Your task to perform on an android device: toggle improve location accuracy Image 0: 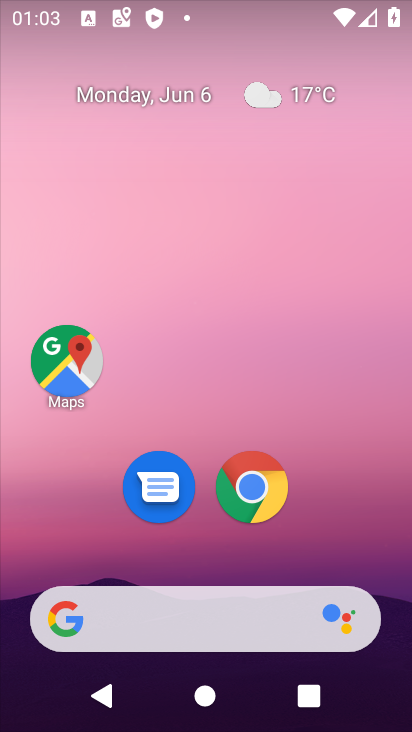
Step 0: drag from (403, 610) to (343, 145)
Your task to perform on an android device: toggle improve location accuracy Image 1: 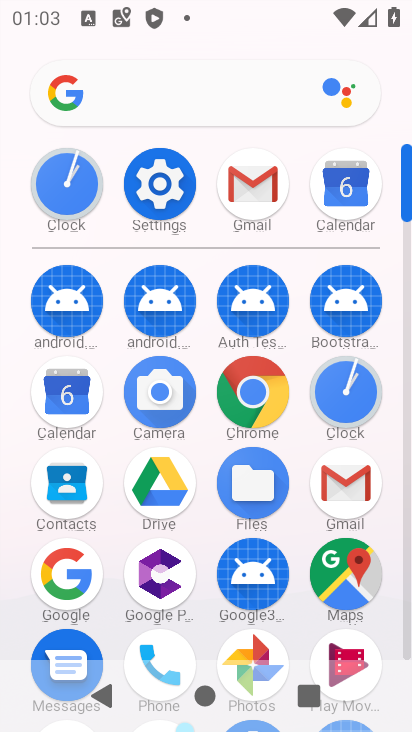
Step 1: click (408, 615)
Your task to perform on an android device: toggle improve location accuracy Image 2: 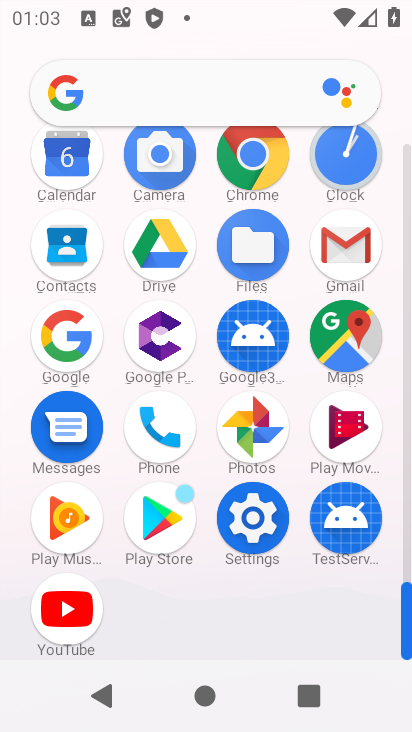
Step 2: click (251, 517)
Your task to perform on an android device: toggle improve location accuracy Image 3: 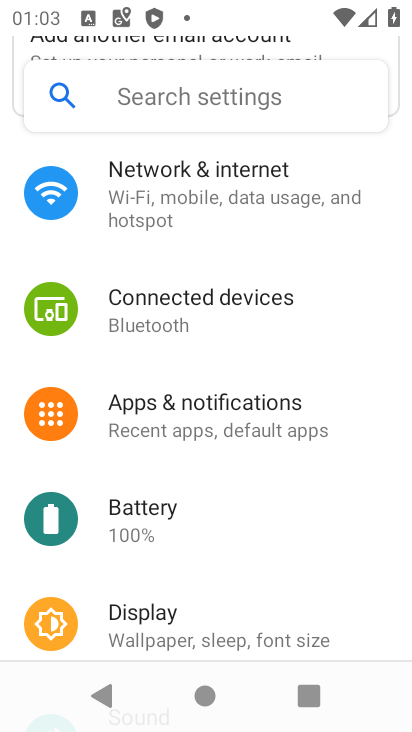
Step 3: drag from (294, 614) to (300, 135)
Your task to perform on an android device: toggle improve location accuracy Image 4: 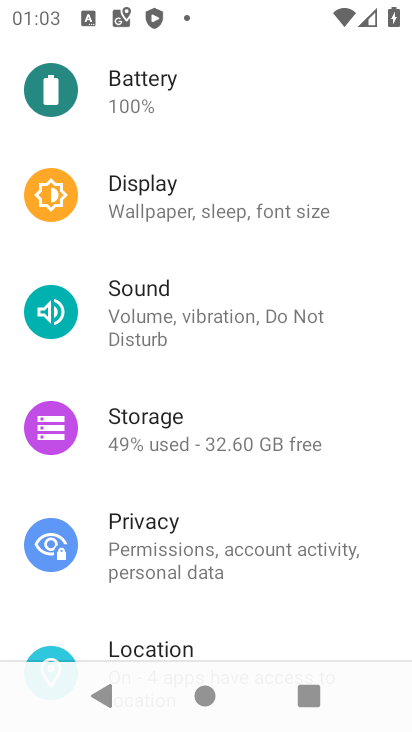
Step 4: drag from (362, 552) to (299, 133)
Your task to perform on an android device: toggle improve location accuracy Image 5: 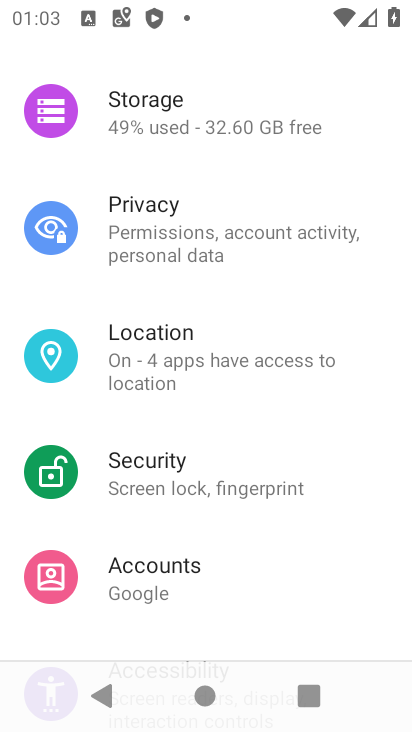
Step 5: click (157, 364)
Your task to perform on an android device: toggle improve location accuracy Image 6: 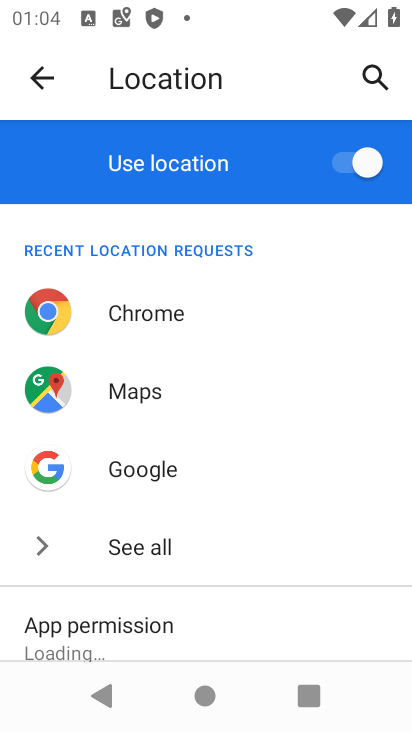
Step 6: drag from (303, 608) to (286, 188)
Your task to perform on an android device: toggle improve location accuracy Image 7: 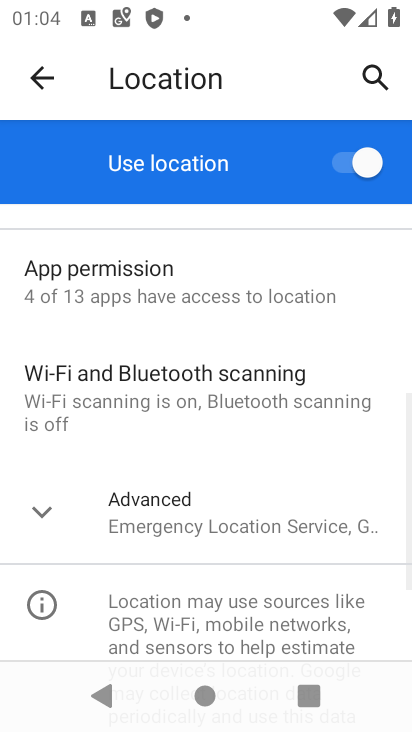
Step 7: click (36, 519)
Your task to perform on an android device: toggle improve location accuracy Image 8: 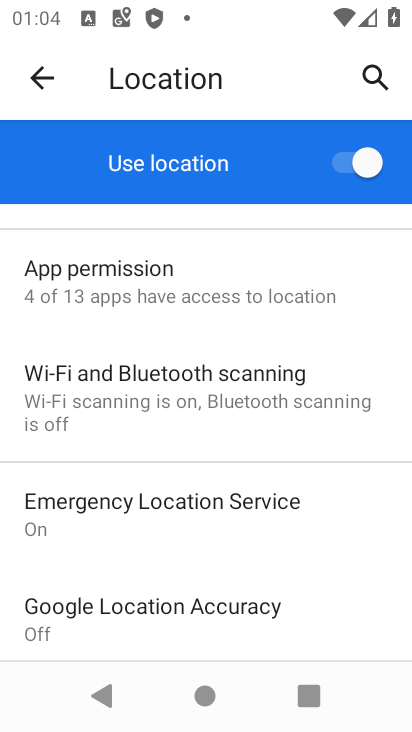
Step 8: click (193, 608)
Your task to perform on an android device: toggle improve location accuracy Image 9: 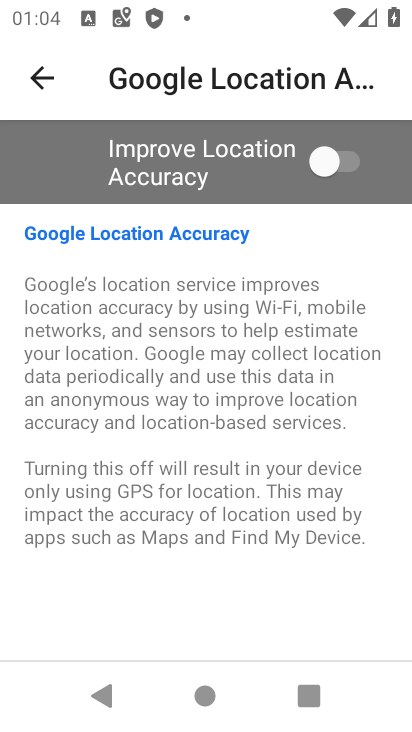
Step 9: click (344, 152)
Your task to perform on an android device: toggle improve location accuracy Image 10: 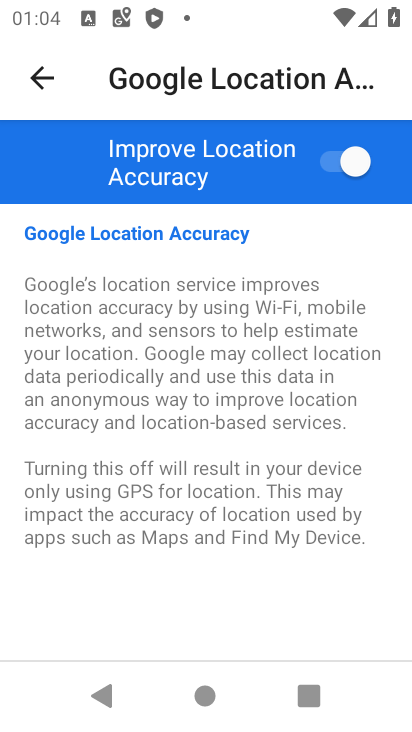
Step 10: task complete